Your task to perform on an android device: Go to eBay Image 0: 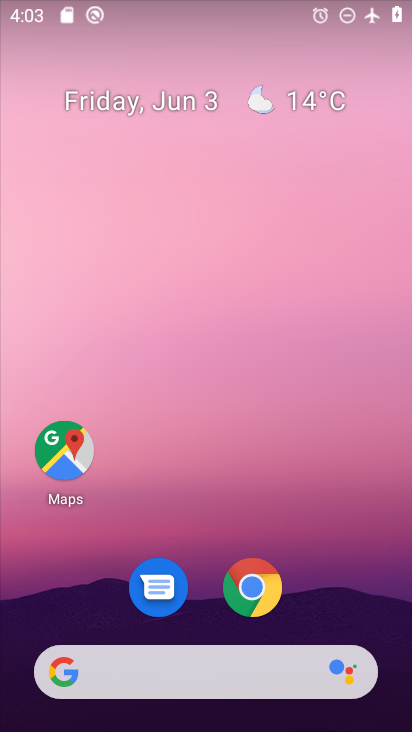
Step 0: click (256, 584)
Your task to perform on an android device: Go to eBay Image 1: 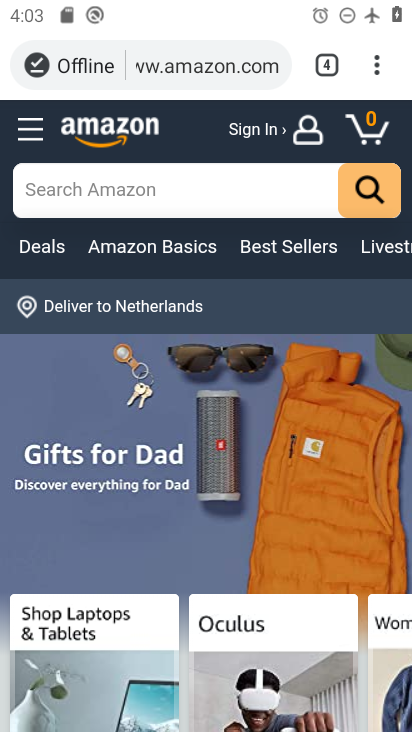
Step 1: click (376, 72)
Your task to perform on an android device: Go to eBay Image 2: 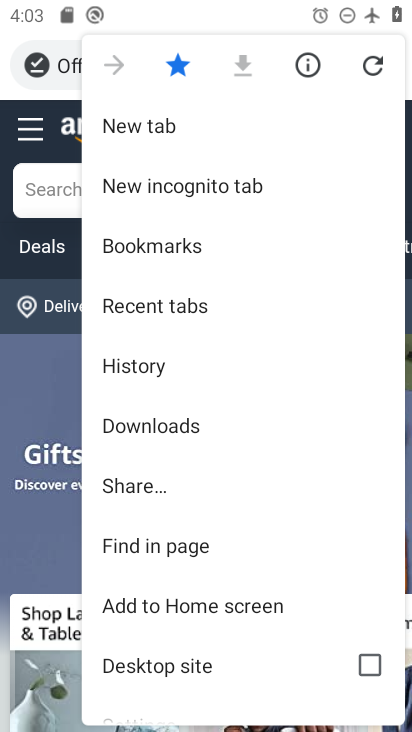
Step 2: click (154, 126)
Your task to perform on an android device: Go to eBay Image 3: 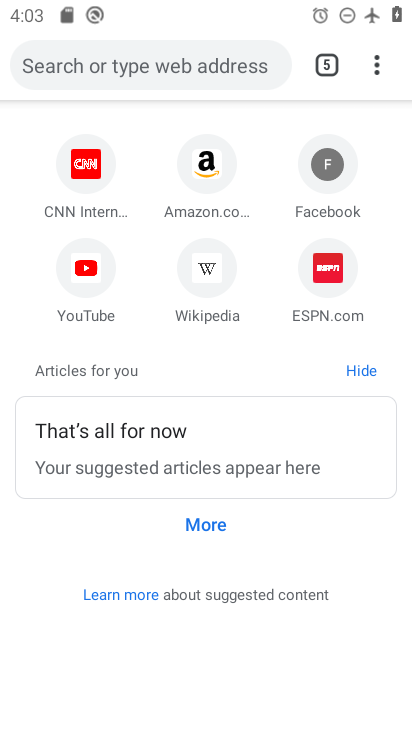
Step 3: click (216, 63)
Your task to perform on an android device: Go to eBay Image 4: 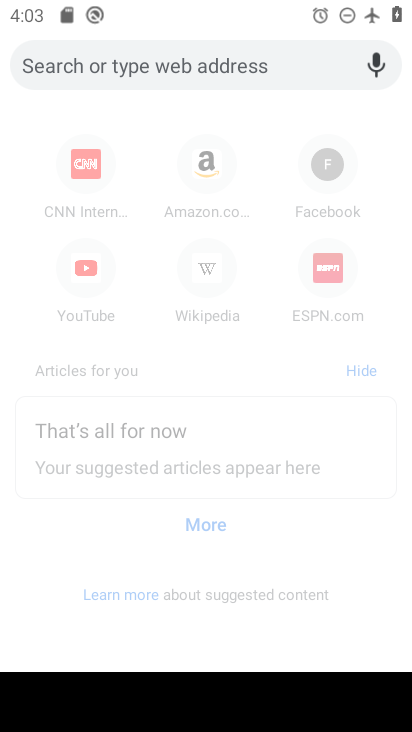
Step 4: type "eBay"
Your task to perform on an android device: Go to eBay Image 5: 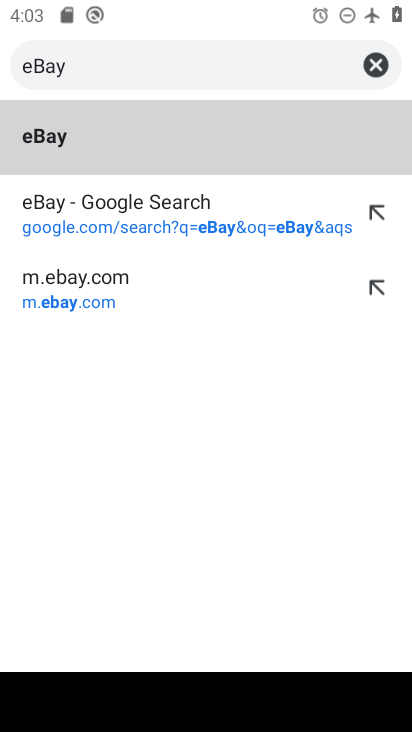
Step 5: click (73, 129)
Your task to perform on an android device: Go to eBay Image 6: 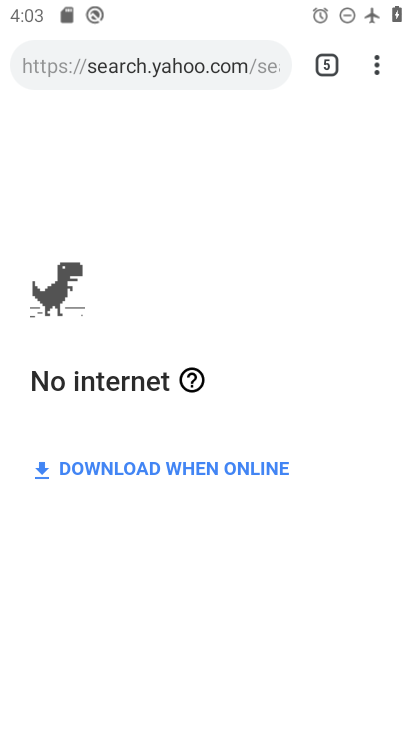
Step 6: task complete